Your task to perform on an android device: Open Youtube and go to the subscriptions tab Image 0: 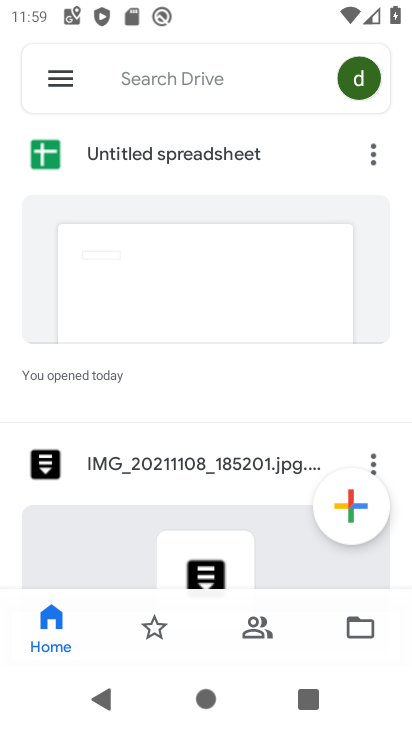
Step 0: press home button
Your task to perform on an android device: Open Youtube and go to the subscriptions tab Image 1: 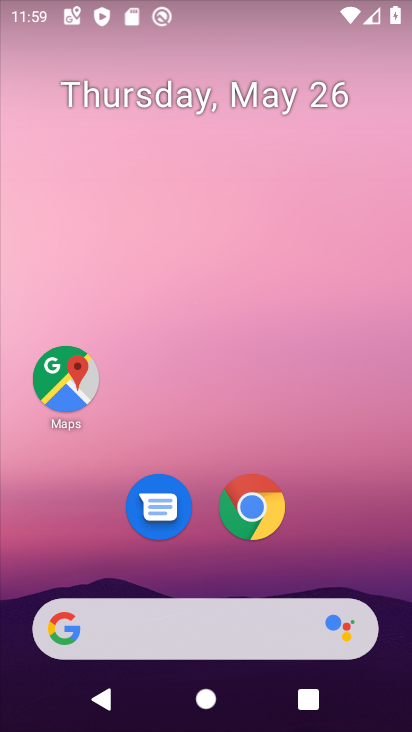
Step 1: drag from (347, 528) to (319, 88)
Your task to perform on an android device: Open Youtube and go to the subscriptions tab Image 2: 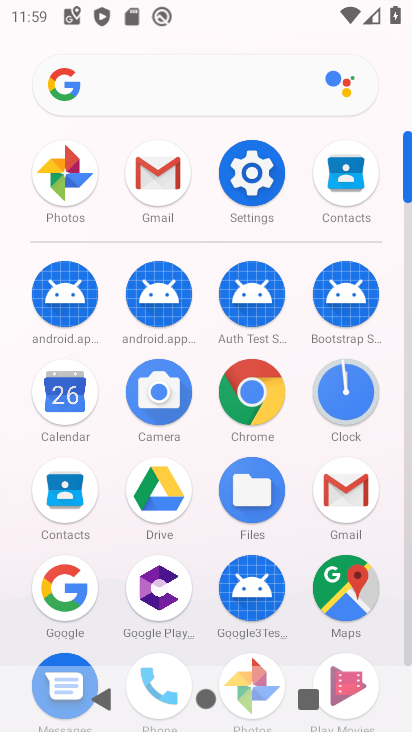
Step 2: drag from (208, 583) to (228, 284)
Your task to perform on an android device: Open Youtube and go to the subscriptions tab Image 3: 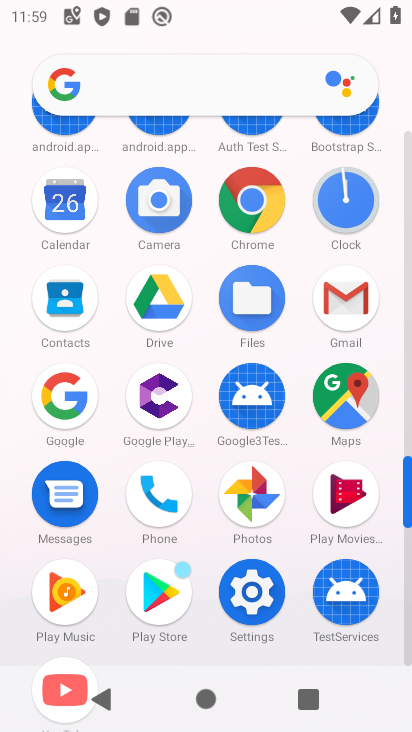
Step 3: click (69, 685)
Your task to perform on an android device: Open Youtube and go to the subscriptions tab Image 4: 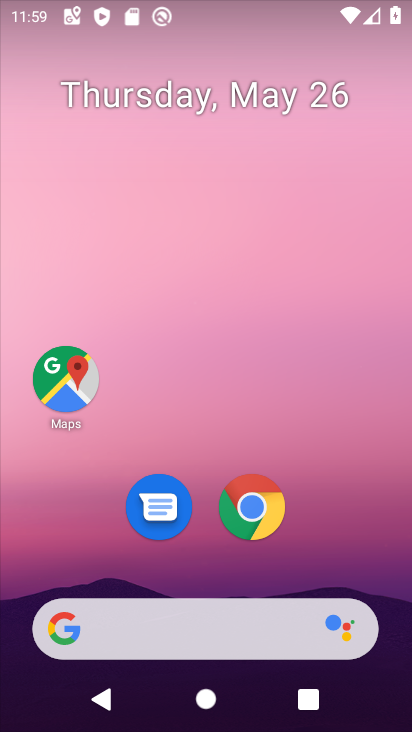
Step 4: drag from (333, 550) to (312, 113)
Your task to perform on an android device: Open Youtube and go to the subscriptions tab Image 5: 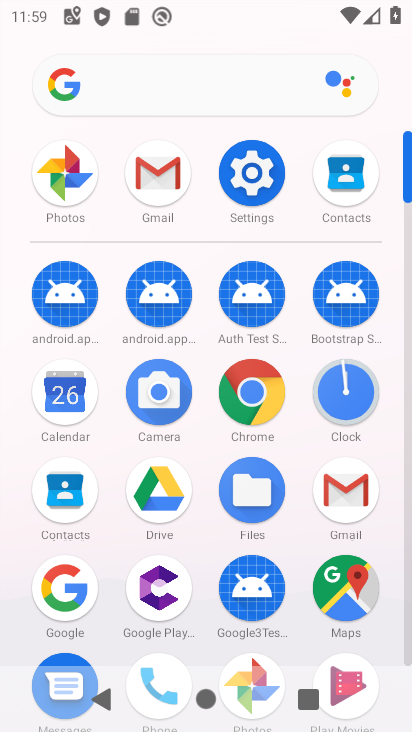
Step 5: drag from (287, 631) to (303, 258)
Your task to perform on an android device: Open Youtube and go to the subscriptions tab Image 6: 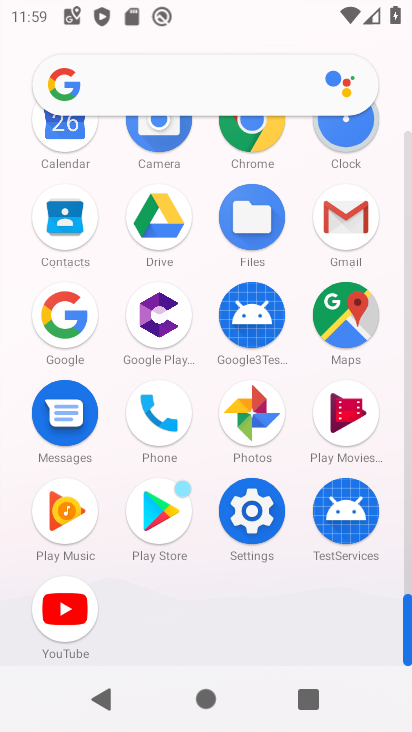
Step 6: click (62, 614)
Your task to perform on an android device: Open Youtube and go to the subscriptions tab Image 7: 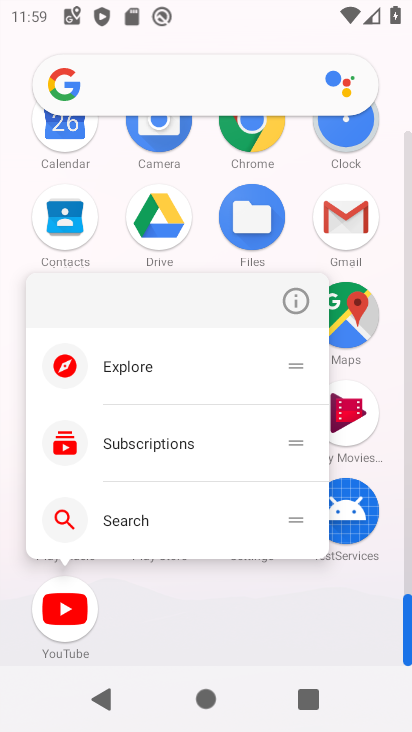
Step 7: click (66, 603)
Your task to perform on an android device: Open Youtube and go to the subscriptions tab Image 8: 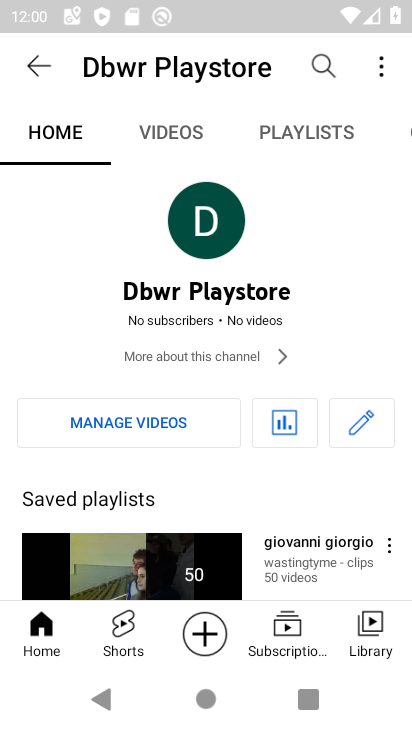
Step 8: click (372, 55)
Your task to perform on an android device: Open Youtube and go to the subscriptions tab Image 9: 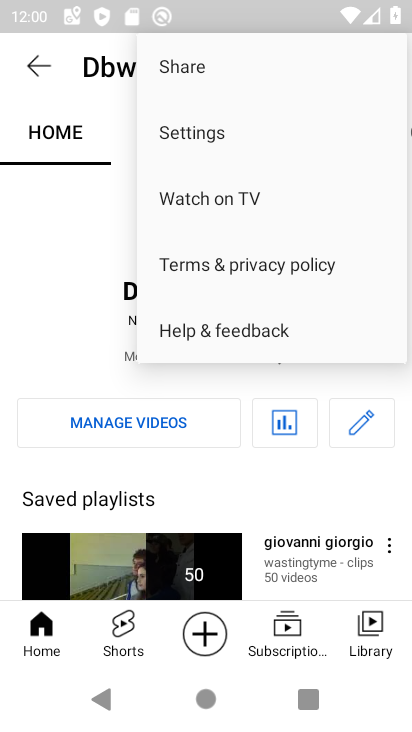
Step 9: click (274, 617)
Your task to perform on an android device: Open Youtube and go to the subscriptions tab Image 10: 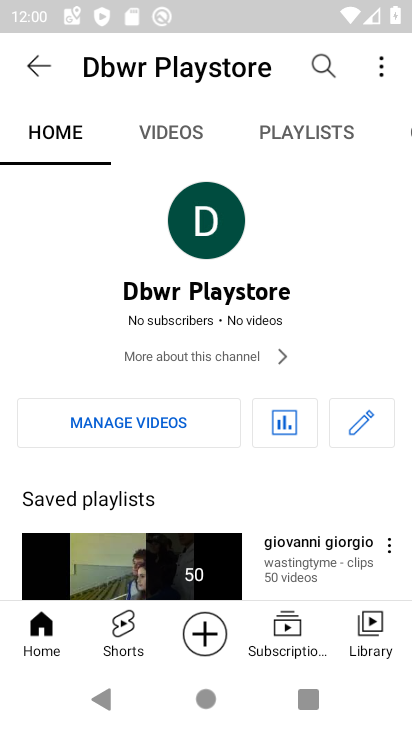
Step 10: click (274, 617)
Your task to perform on an android device: Open Youtube and go to the subscriptions tab Image 11: 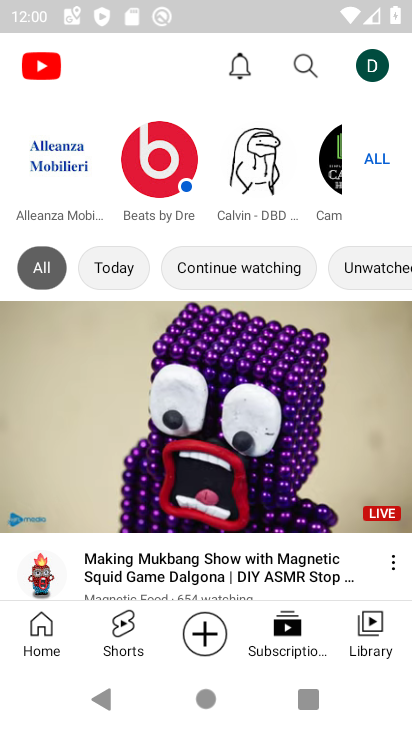
Step 11: task complete